Your task to perform on an android device: Search for seafood restaurants on Google Maps Image 0: 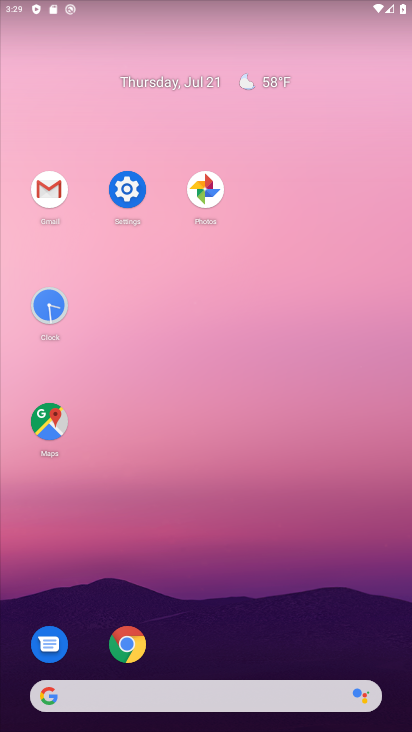
Step 0: click (48, 426)
Your task to perform on an android device: Search for seafood restaurants on Google Maps Image 1: 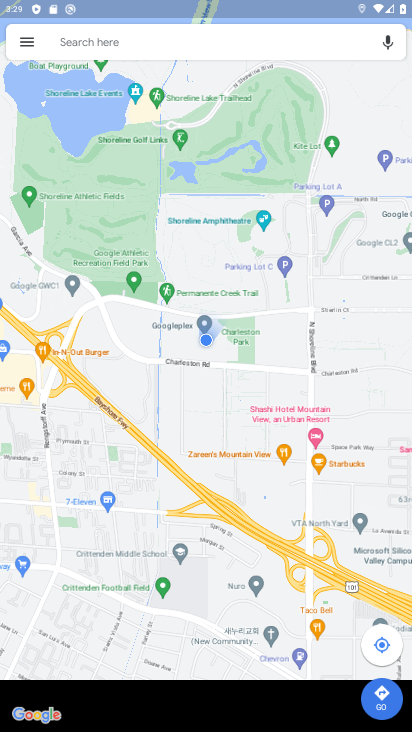
Step 1: click (197, 48)
Your task to perform on an android device: Search for seafood restaurants on Google Maps Image 2: 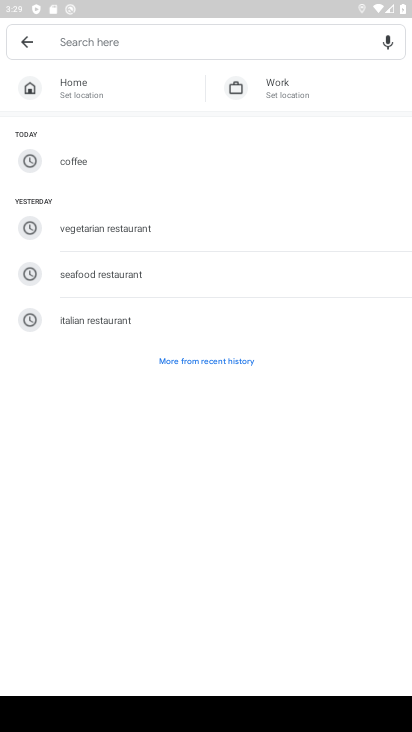
Step 2: click (165, 267)
Your task to perform on an android device: Search for seafood restaurants on Google Maps Image 3: 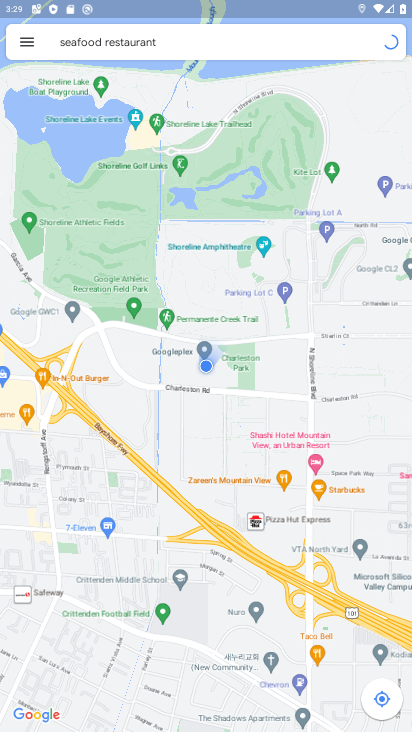
Step 3: task complete